Your task to perform on an android device: Go to Google maps Image 0: 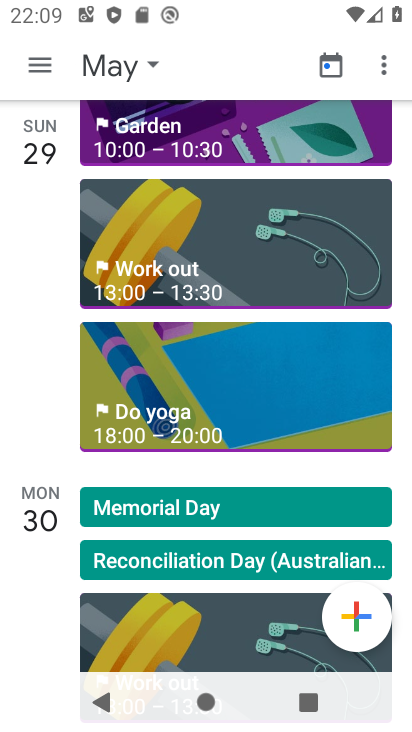
Step 0: press home button
Your task to perform on an android device: Go to Google maps Image 1: 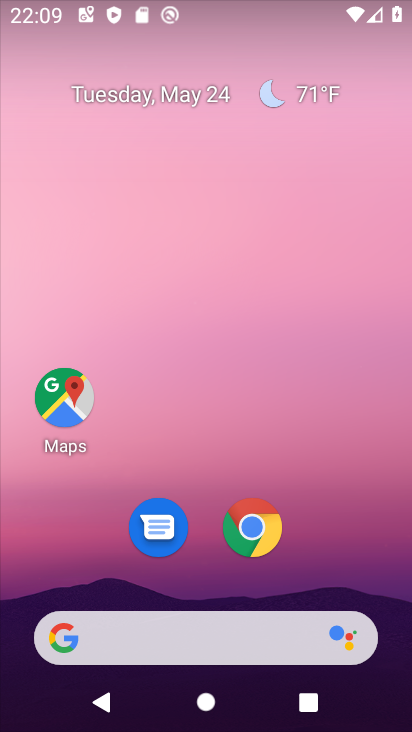
Step 1: click (40, 395)
Your task to perform on an android device: Go to Google maps Image 2: 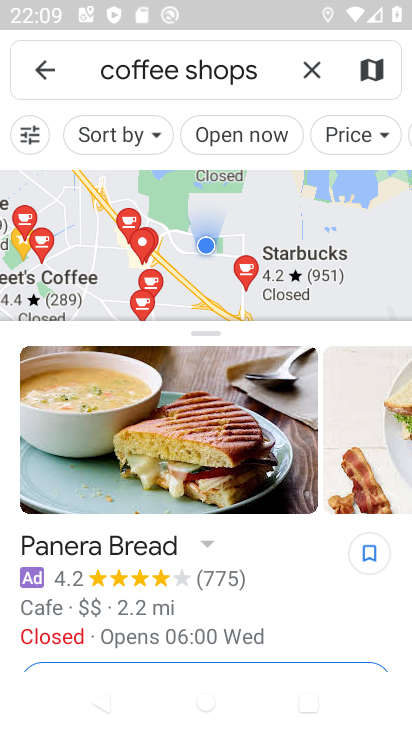
Step 2: click (42, 74)
Your task to perform on an android device: Go to Google maps Image 3: 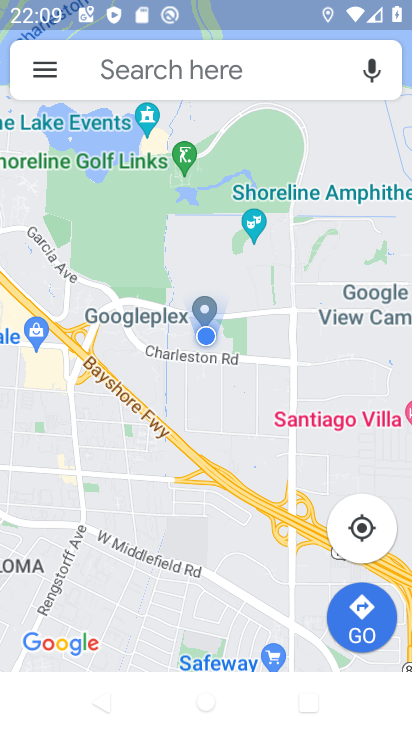
Step 3: task complete